Your task to perform on an android device: toggle wifi Image 0: 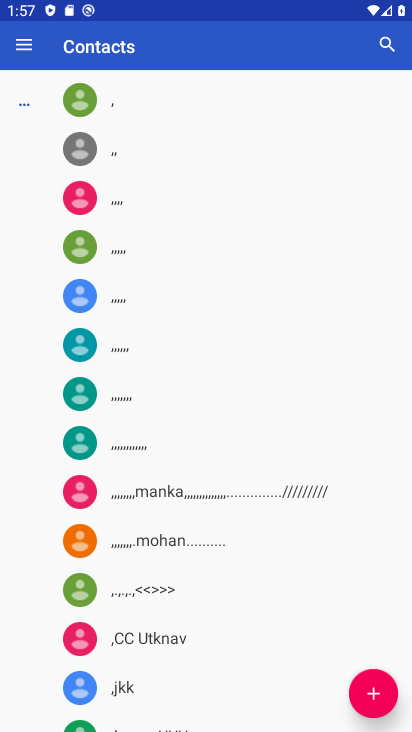
Step 0: press home button
Your task to perform on an android device: toggle wifi Image 1: 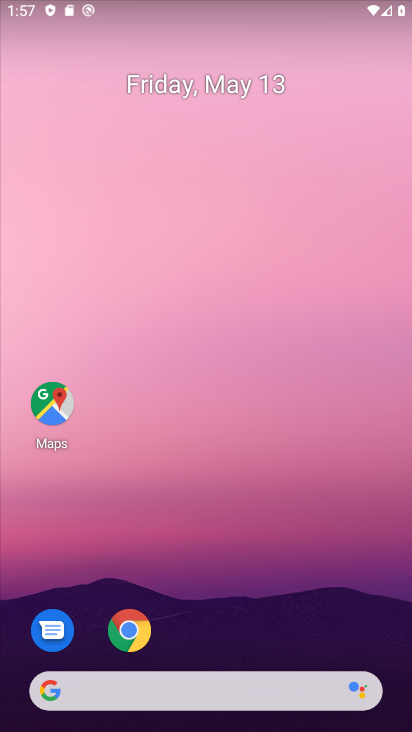
Step 1: drag from (236, 651) to (239, 213)
Your task to perform on an android device: toggle wifi Image 2: 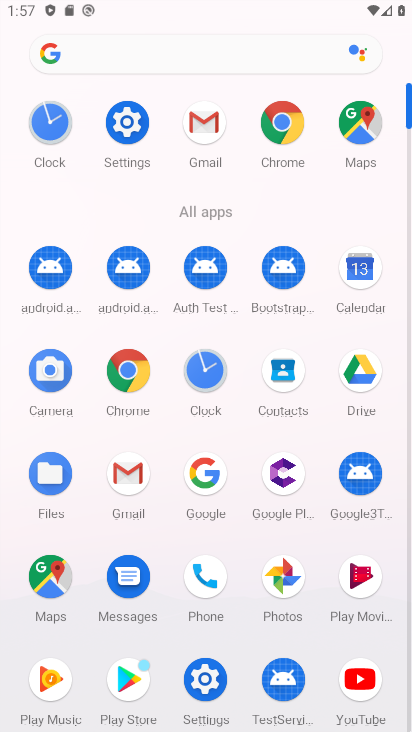
Step 2: click (130, 119)
Your task to perform on an android device: toggle wifi Image 3: 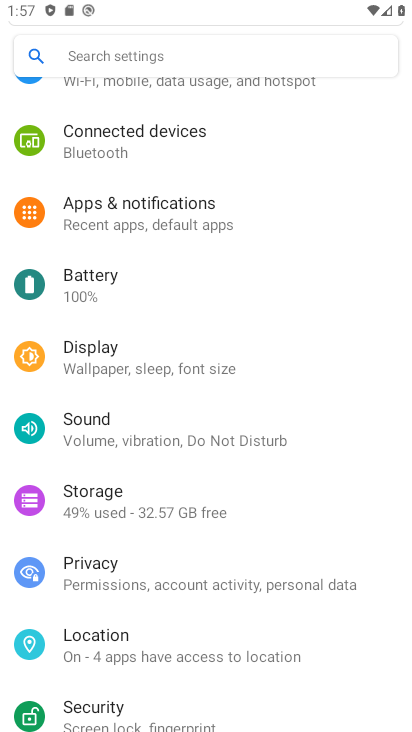
Step 3: drag from (268, 181) to (257, 436)
Your task to perform on an android device: toggle wifi Image 4: 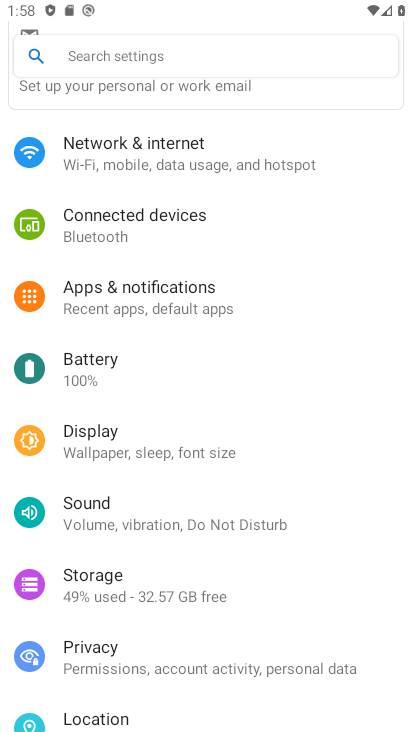
Step 4: click (195, 145)
Your task to perform on an android device: toggle wifi Image 5: 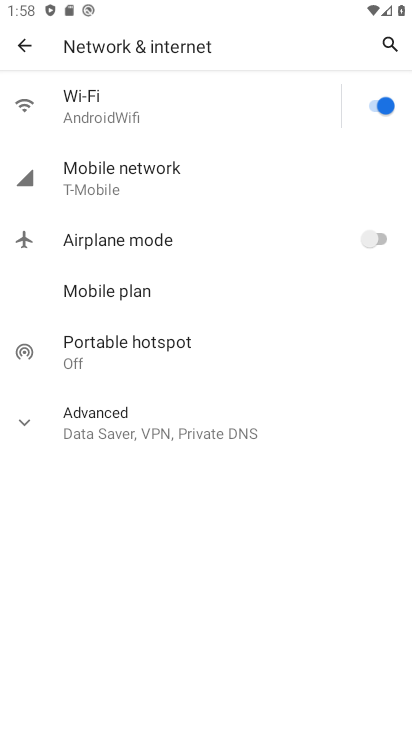
Step 5: click (376, 102)
Your task to perform on an android device: toggle wifi Image 6: 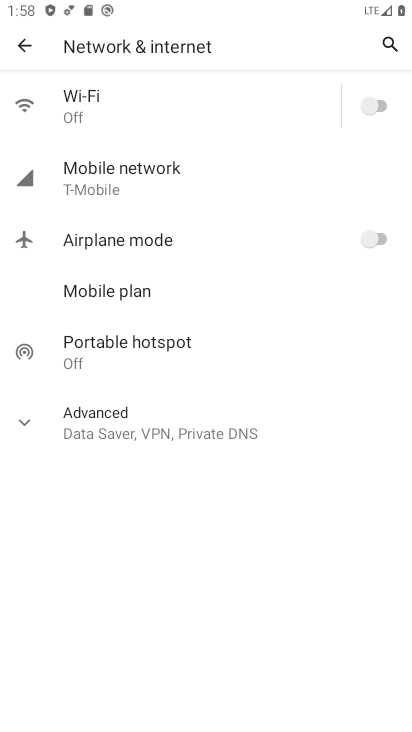
Step 6: task complete